Your task to perform on an android device: Open Yahoo.com Image 0: 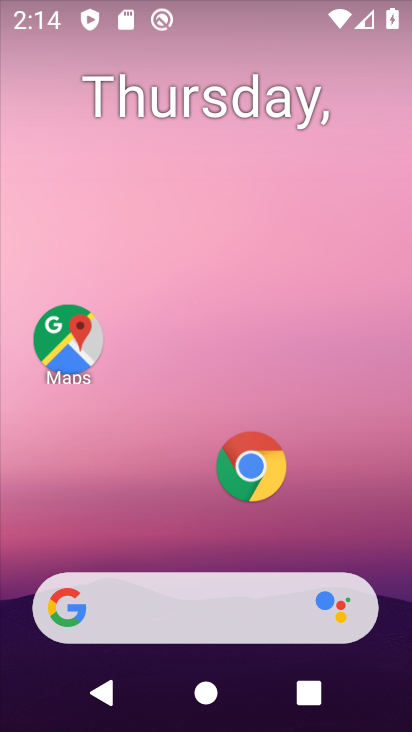
Step 0: click (247, 473)
Your task to perform on an android device: Open Yahoo.com Image 1: 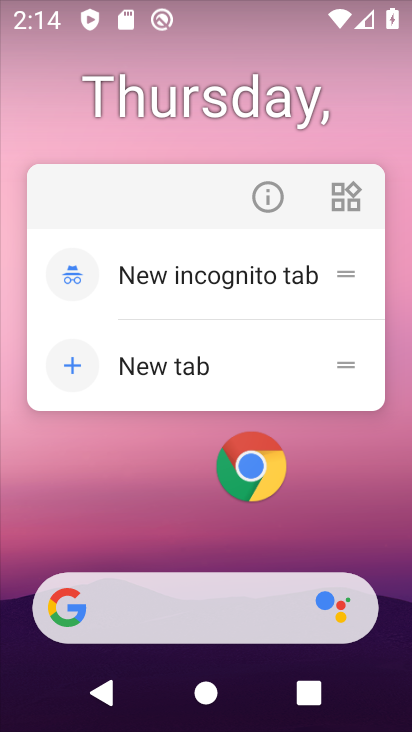
Step 1: click (261, 476)
Your task to perform on an android device: Open Yahoo.com Image 2: 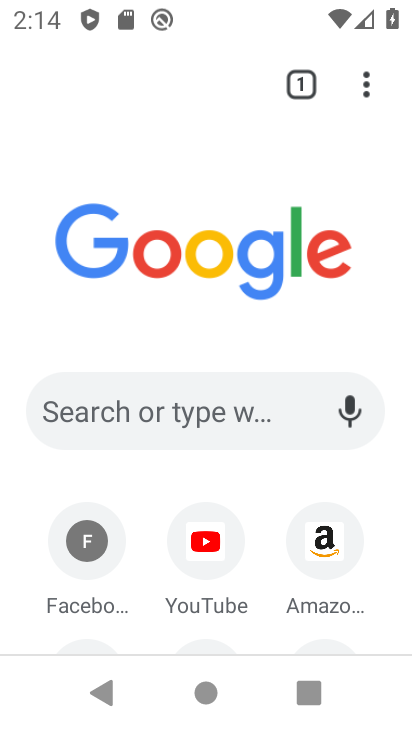
Step 2: drag from (150, 593) to (158, 264)
Your task to perform on an android device: Open Yahoo.com Image 3: 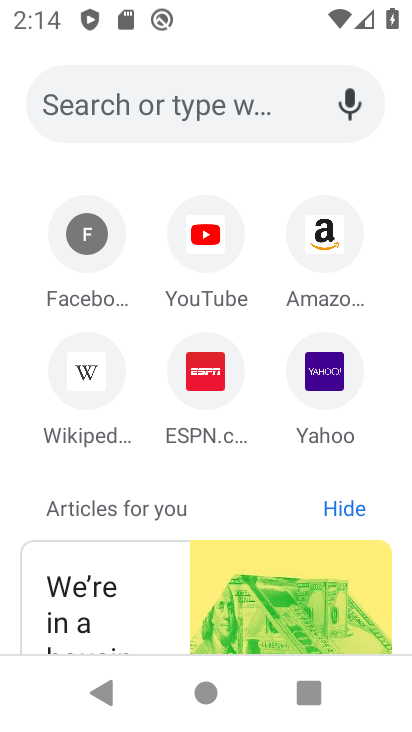
Step 3: click (313, 364)
Your task to perform on an android device: Open Yahoo.com Image 4: 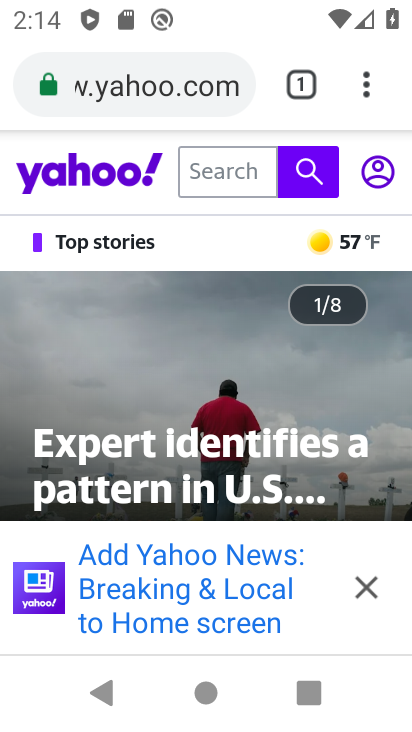
Step 4: task complete